Your task to perform on an android device: Open the calendar and show me this week's events Image 0: 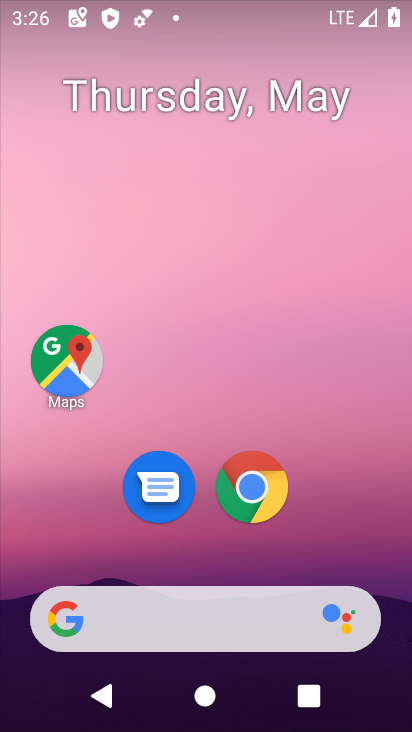
Step 0: drag from (267, 495) to (342, 2)
Your task to perform on an android device: Open the calendar and show me this week's events Image 1: 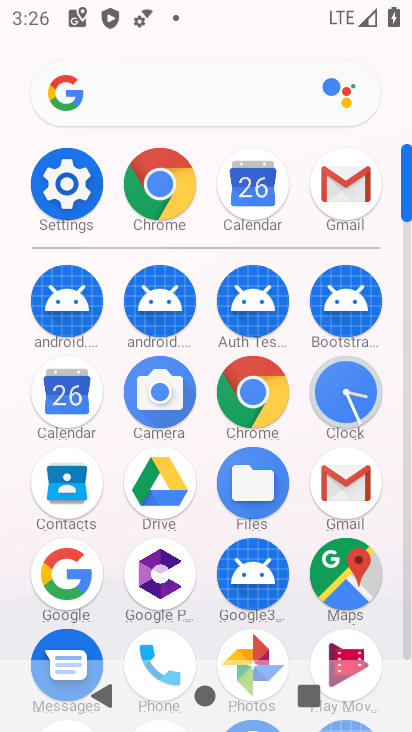
Step 1: click (70, 399)
Your task to perform on an android device: Open the calendar and show me this week's events Image 2: 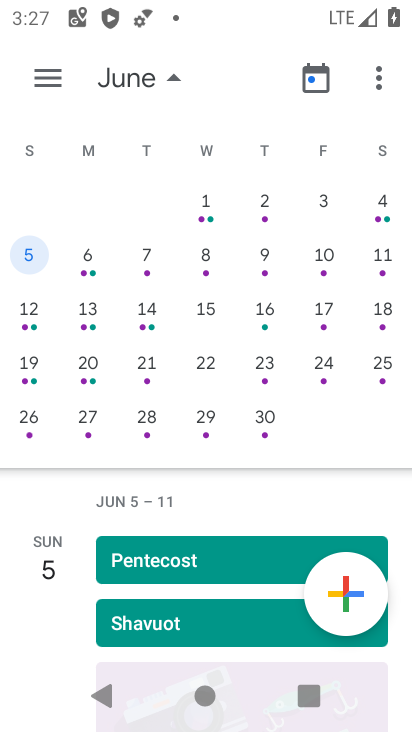
Step 2: drag from (130, 346) to (394, 309)
Your task to perform on an android device: Open the calendar and show me this week's events Image 3: 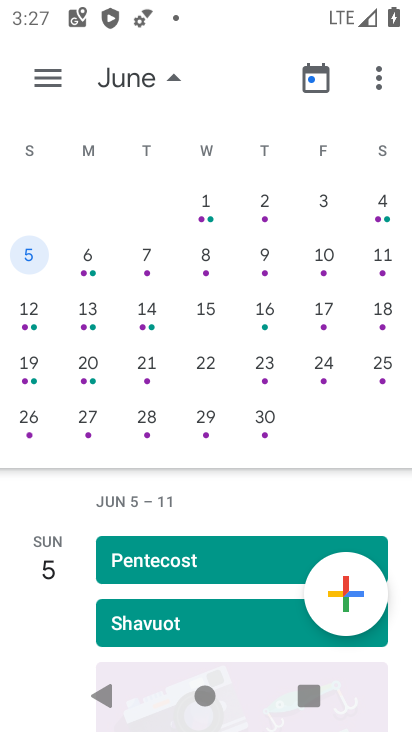
Step 3: drag from (179, 347) to (410, 348)
Your task to perform on an android device: Open the calendar and show me this week's events Image 4: 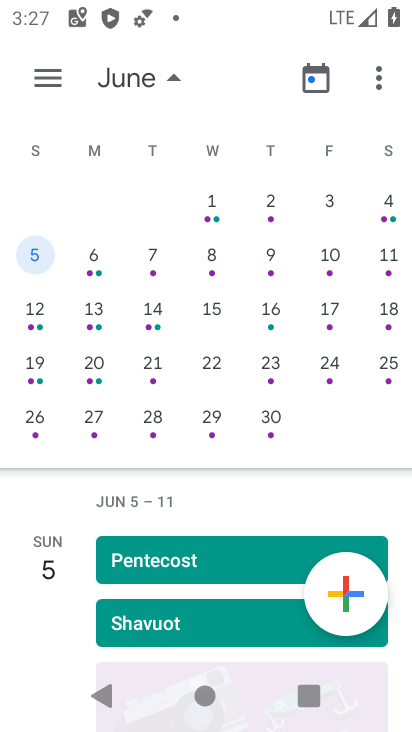
Step 4: drag from (129, 378) to (398, 368)
Your task to perform on an android device: Open the calendar and show me this week's events Image 5: 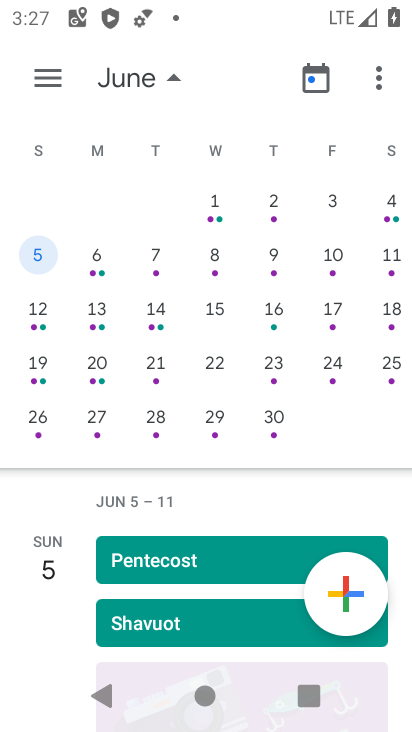
Step 5: drag from (100, 361) to (407, 370)
Your task to perform on an android device: Open the calendar and show me this week's events Image 6: 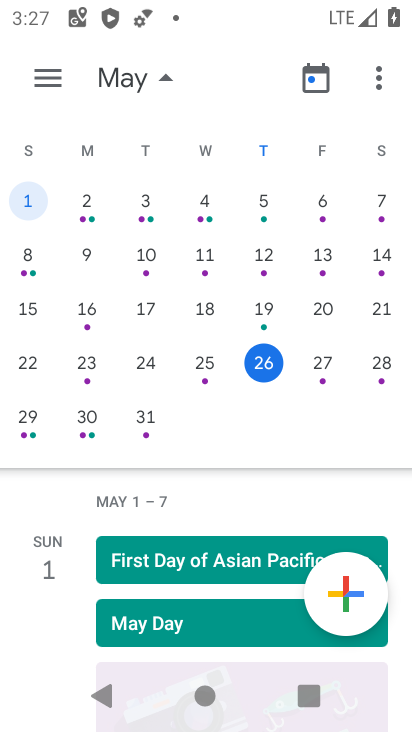
Step 6: drag from (0, 360) to (409, 360)
Your task to perform on an android device: Open the calendar and show me this week's events Image 7: 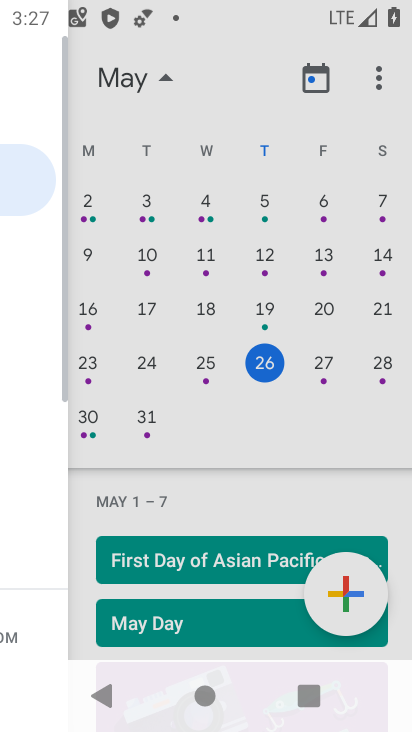
Step 7: click (338, 330)
Your task to perform on an android device: Open the calendar and show me this week's events Image 8: 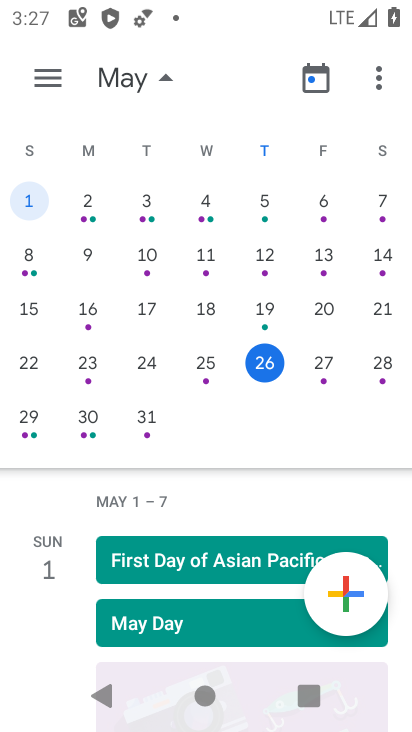
Step 8: click (262, 369)
Your task to perform on an android device: Open the calendar and show me this week's events Image 9: 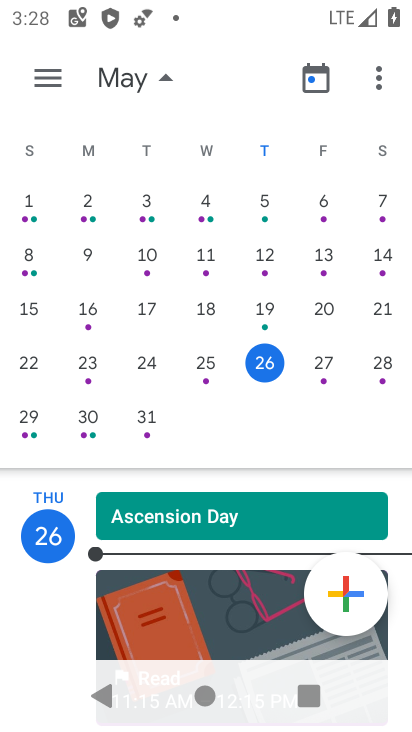
Step 9: task complete